Your task to perform on an android device: check the backup settings in the google photos Image 0: 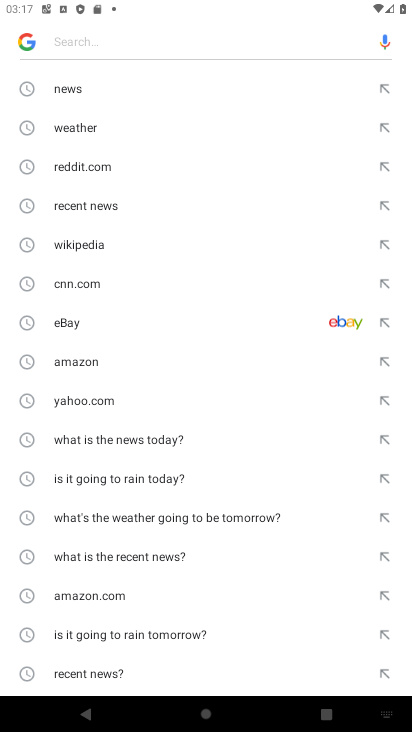
Step 0: press home button
Your task to perform on an android device: check the backup settings in the google photos Image 1: 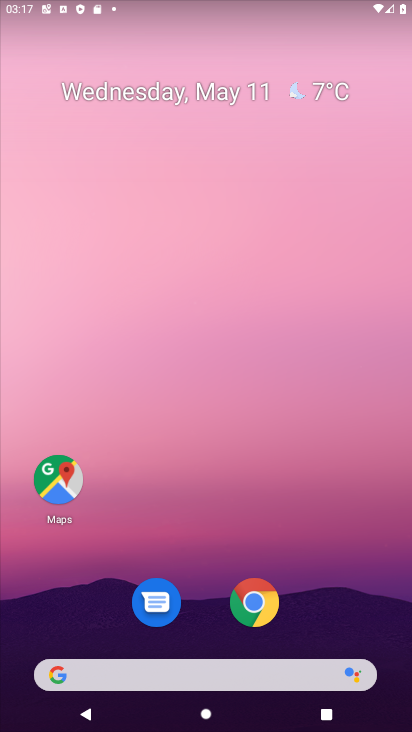
Step 1: drag from (336, 575) to (287, 310)
Your task to perform on an android device: check the backup settings in the google photos Image 2: 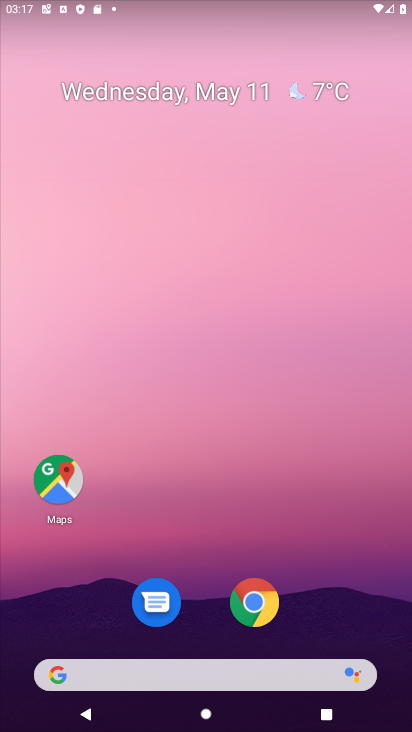
Step 2: drag from (299, 549) to (254, 175)
Your task to perform on an android device: check the backup settings in the google photos Image 3: 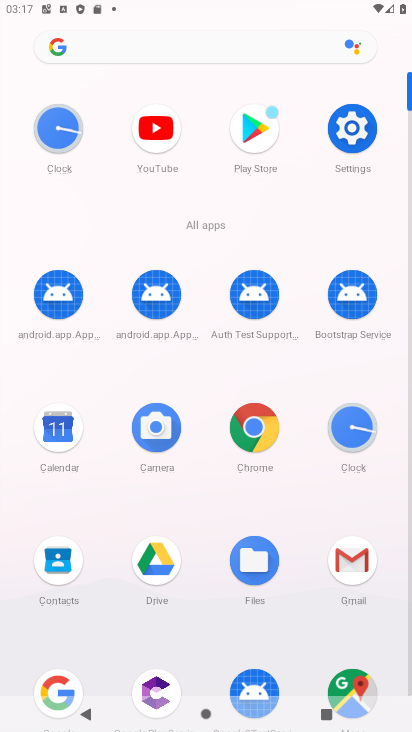
Step 3: drag from (232, 592) to (242, 215)
Your task to perform on an android device: check the backup settings in the google photos Image 4: 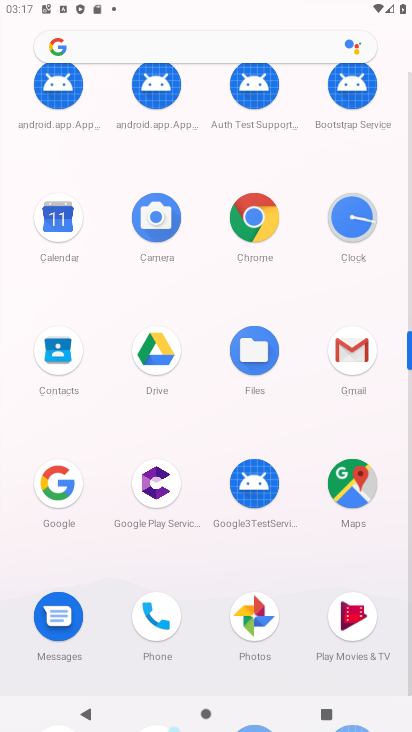
Step 4: click (240, 610)
Your task to perform on an android device: check the backup settings in the google photos Image 5: 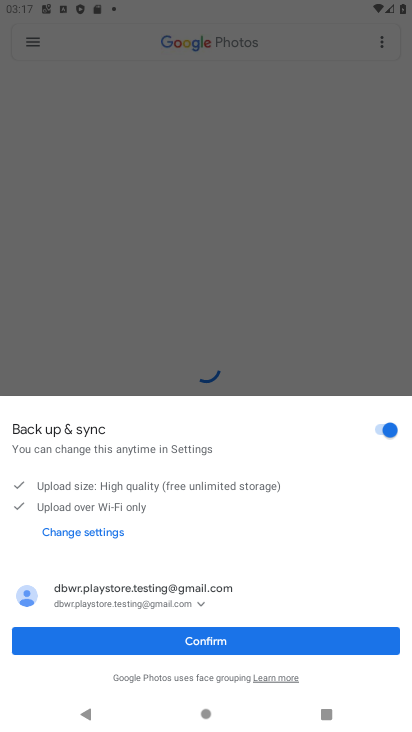
Step 5: click (259, 142)
Your task to perform on an android device: check the backup settings in the google photos Image 6: 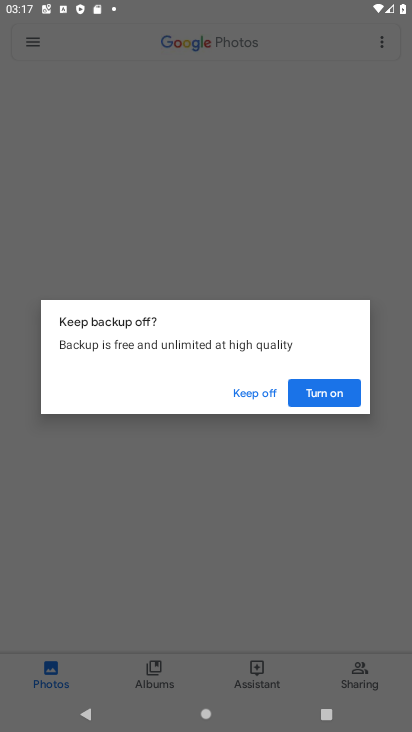
Step 6: click (256, 398)
Your task to perform on an android device: check the backup settings in the google photos Image 7: 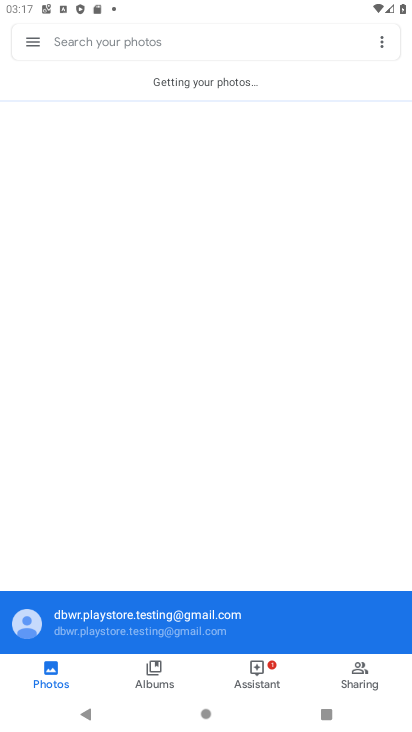
Step 7: click (22, 34)
Your task to perform on an android device: check the backup settings in the google photos Image 8: 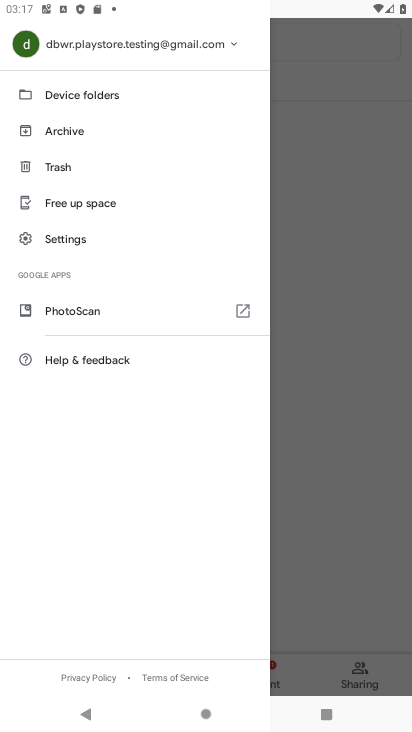
Step 8: click (84, 234)
Your task to perform on an android device: check the backup settings in the google photos Image 9: 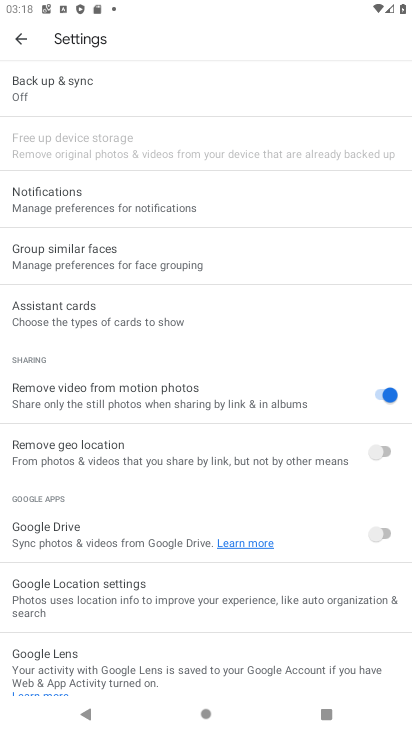
Step 9: click (95, 78)
Your task to perform on an android device: check the backup settings in the google photos Image 10: 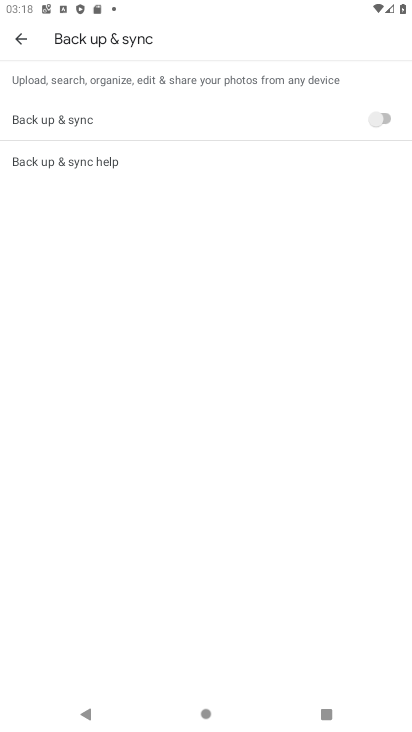
Step 10: task complete